Your task to perform on an android device: change the clock display to digital Image 0: 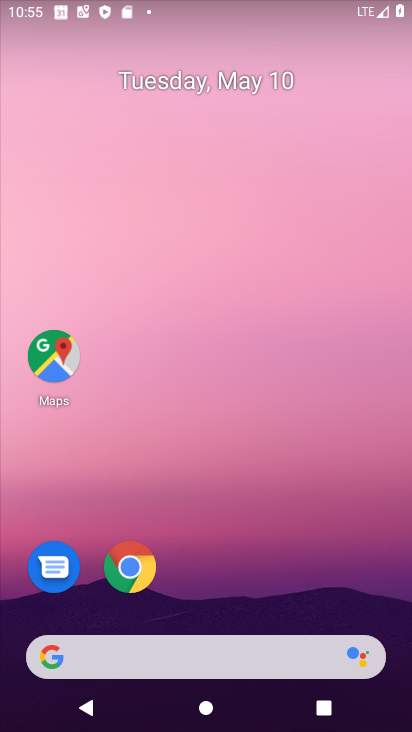
Step 0: press home button
Your task to perform on an android device: change the clock display to digital Image 1: 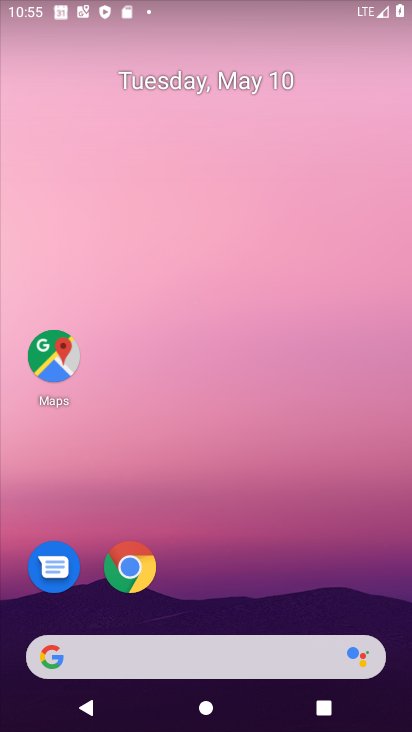
Step 1: drag from (16, 591) to (176, 174)
Your task to perform on an android device: change the clock display to digital Image 2: 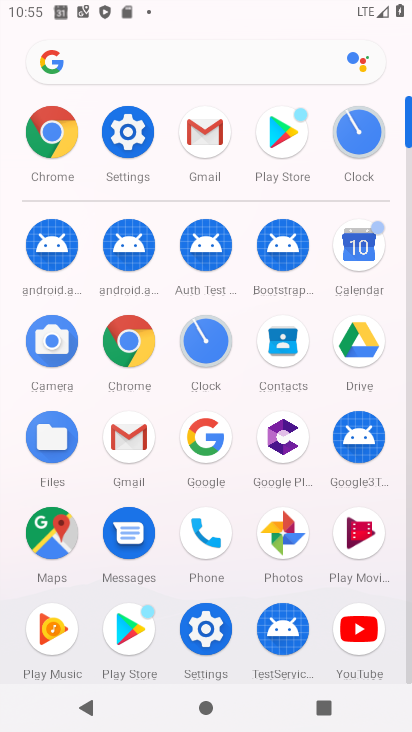
Step 2: click (189, 333)
Your task to perform on an android device: change the clock display to digital Image 3: 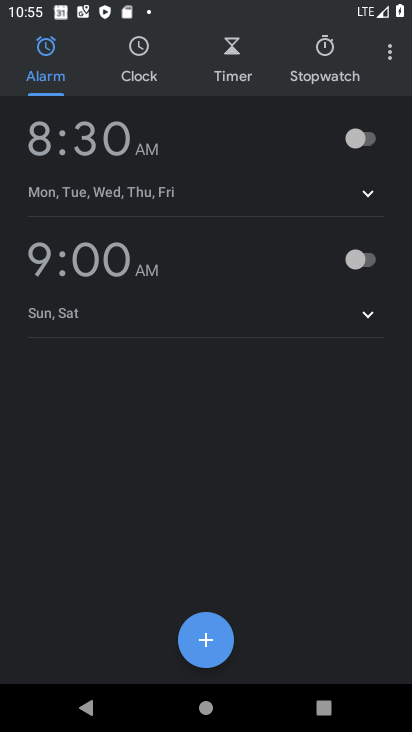
Step 3: click (381, 48)
Your task to perform on an android device: change the clock display to digital Image 4: 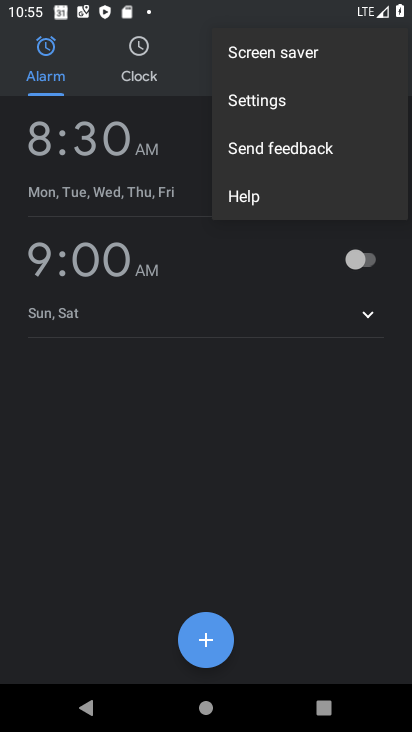
Step 4: click (304, 98)
Your task to perform on an android device: change the clock display to digital Image 5: 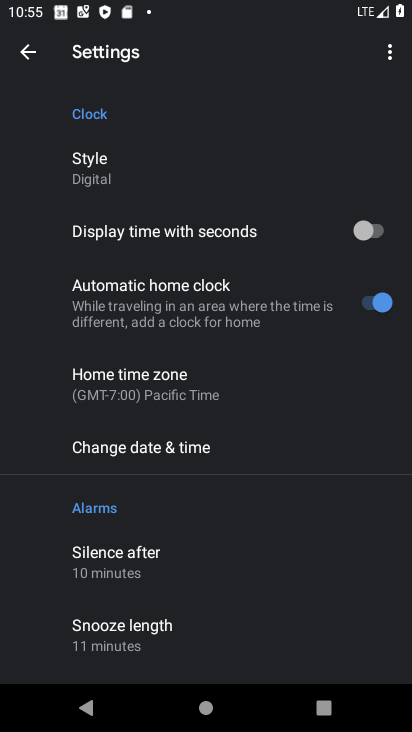
Step 5: click (114, 184)
Your task to perform on an android device: change the clock display to digital Image 6: 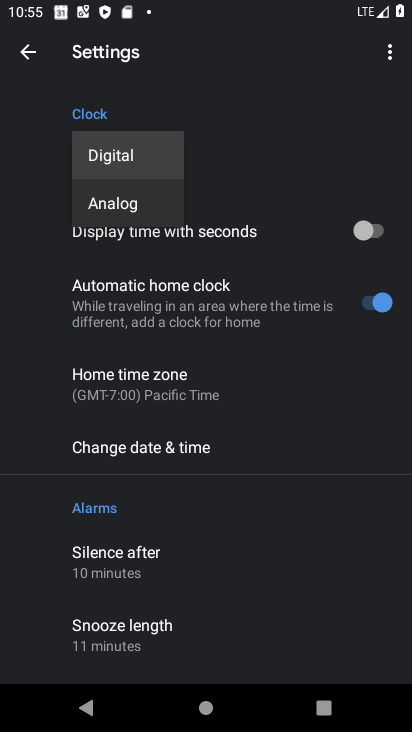
Step 6: click (116, 175)
Your task to perform on an android device: change the clock display to digital Image 7: 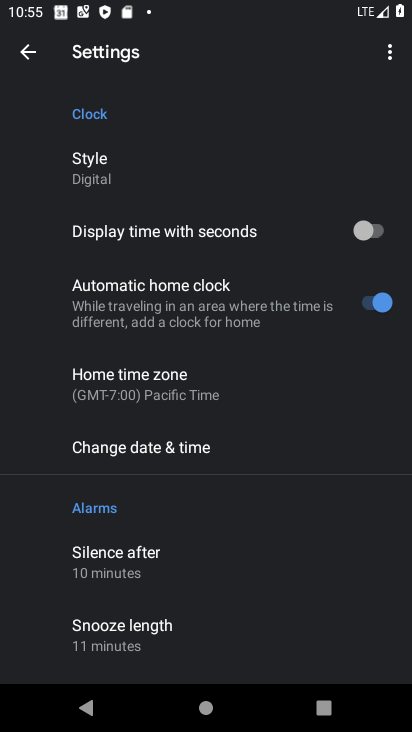
Step 7: task complete